Your task to perform on an android device: Set the phone to "Do not disturb". Image 0: 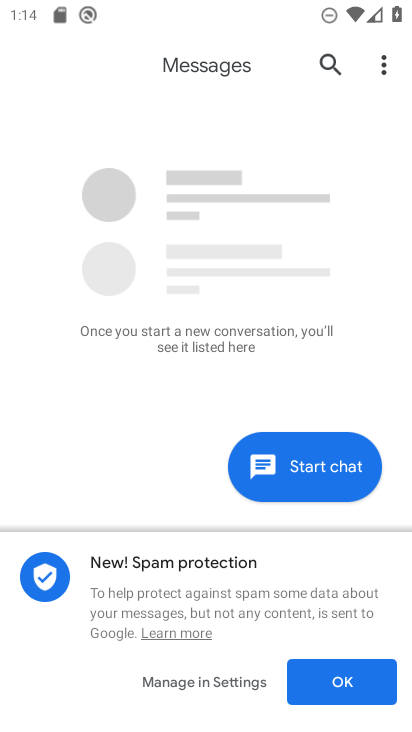
Step 0: press home button
Your task to perform on an android device: Set the phone to "Do not disturb". Image 1: 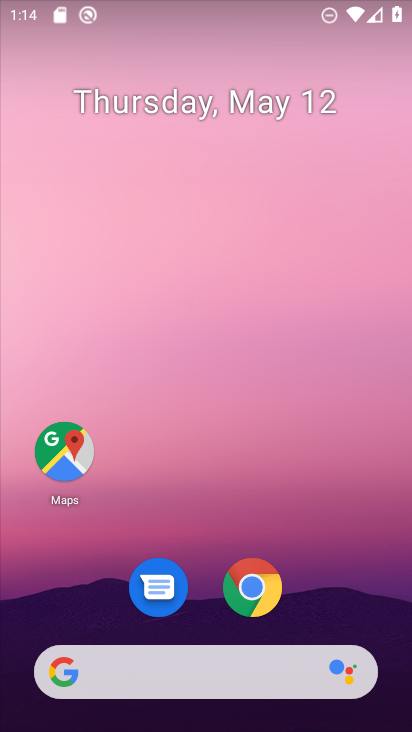
Step 1: drag from (338, 572) to (173, 68)
Your task to perform on an android device: Set the phone to "Do not disturb". Image 2: 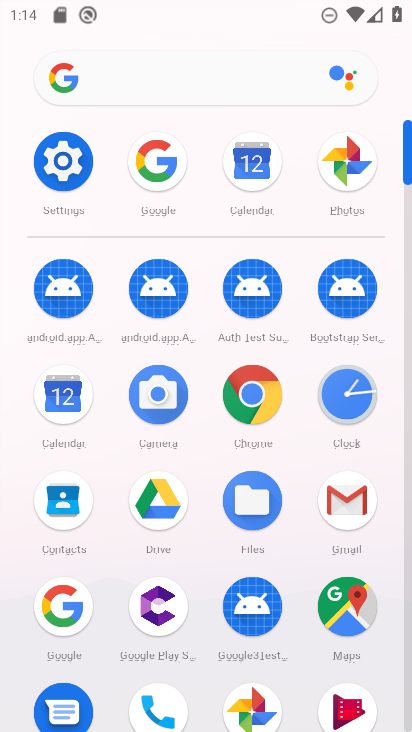
Step 2: click (62, 162)
Your task to perform on an android device: Set the phone to "Do not disturb". Image 3: 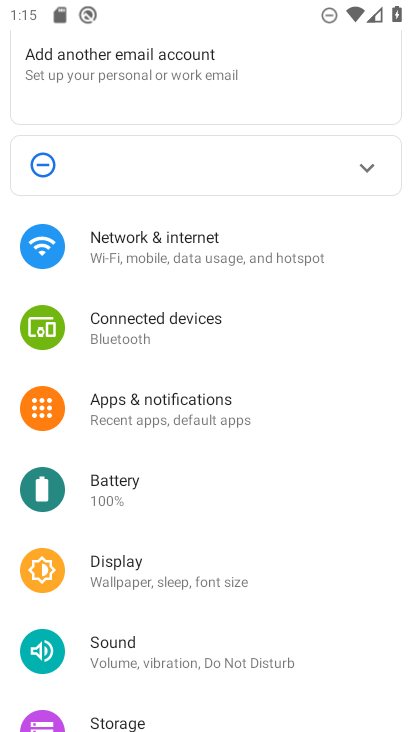
Step 3: drag from (162, 481) to (211, 377)
Your task to perform on an android device: Set the phone to "Do not disturb". Image 4: 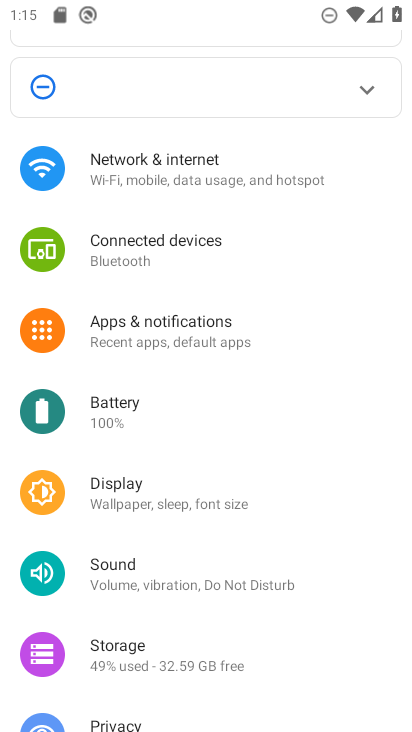
Step 4: click (195, 580)
Your task to perform on an android device: Set the phone to "Do not disturb". Image 5: 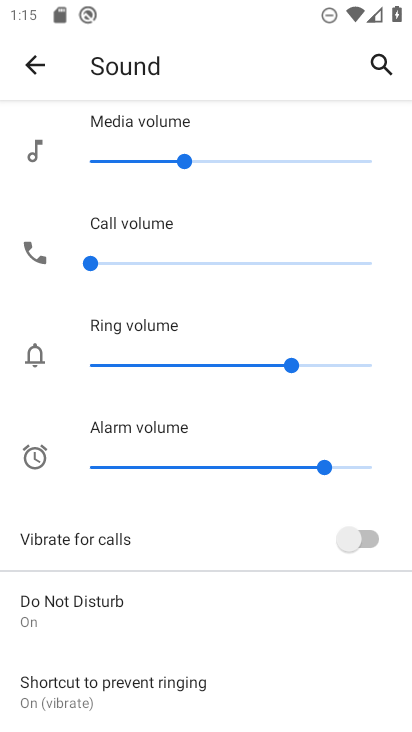
Step 5: click (90, 602)
Your task to perform on an android device: Set the phone to "Do not disturb". Image 6: 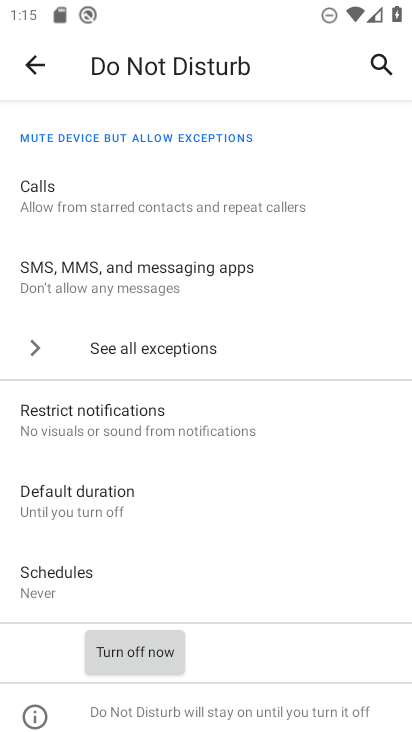
Step 6: task complete